Your task to perform on an android device: turn notification dots on Image 0: 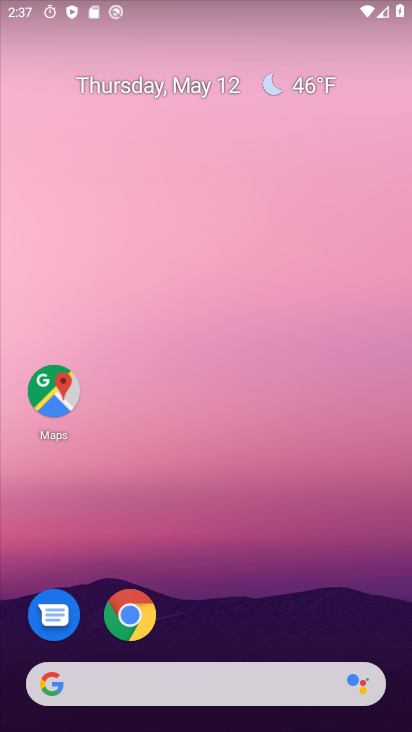
Step 0: drag from (224, 613) to (269, 146)
Your task to perform on an android device: turn notification dots on Image 1: 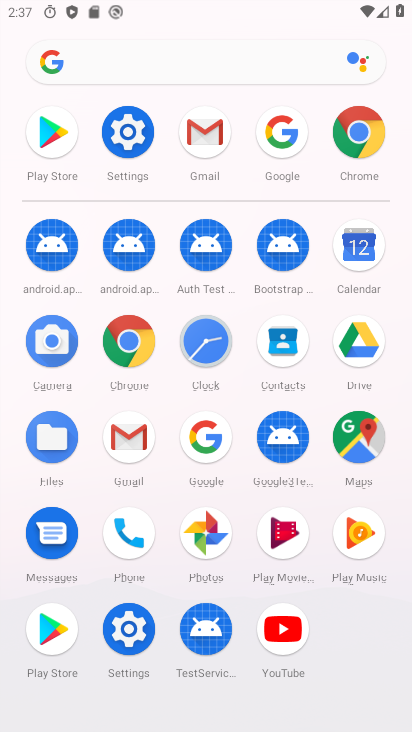
Step 1: click (126, 135)
Your task to perform on an android device: turn notification dots on Image 2: 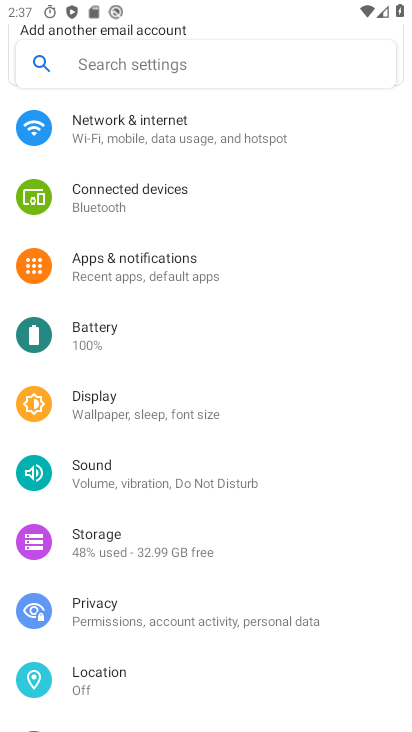
Step 2: click (148, 251)
Your task to perform on an android device: turn notification dots on Image 3: 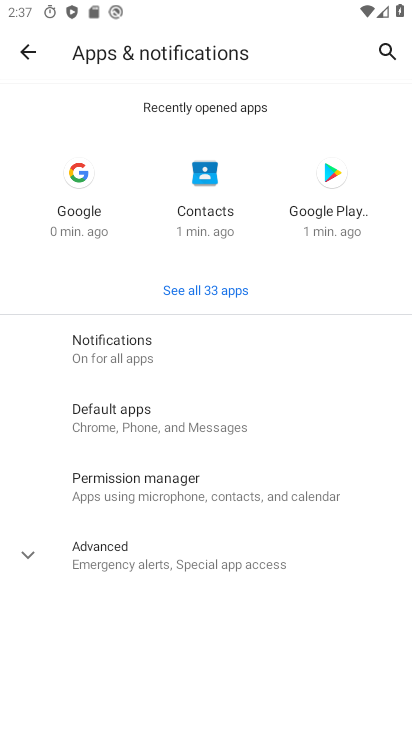
Step 3: click (183, 358)
Your task to perform on an android device: turn notification dots on Image 4: 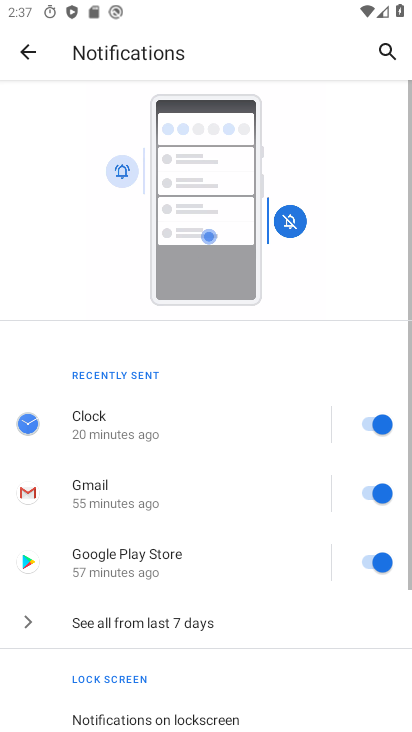
Step 4: drag from (248, 570) to (258, 6)
Your task to perform on an android device: turn notification dots on Image 5: 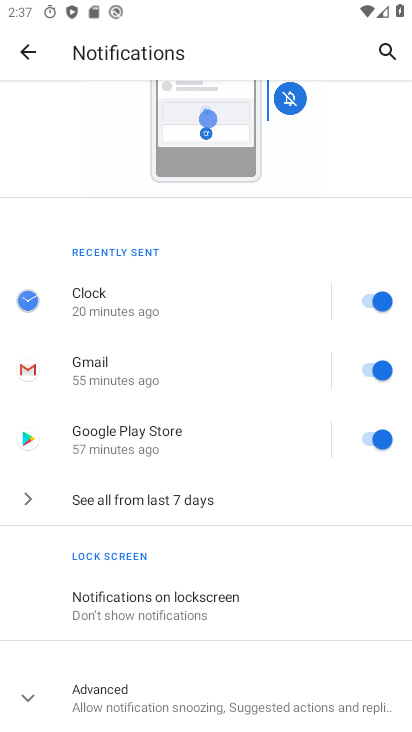
Step 5: click (134, 689)
Your task to perform on an android device: turn notification dots on Image 6: 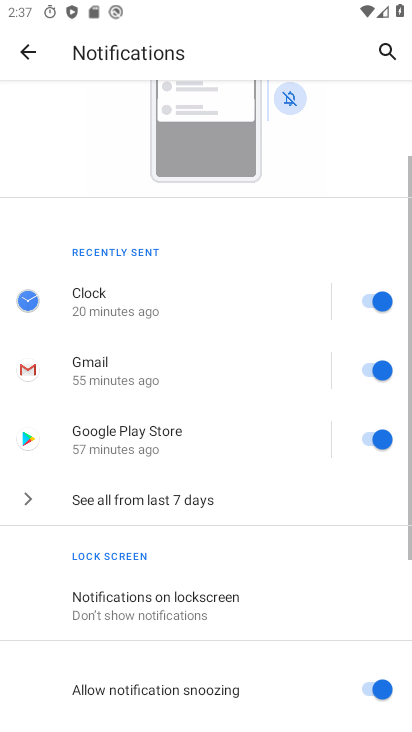
Step 6: drag from (146, 675) to (210, 245)
Your task to perform on an android device: turn notification dots on Image 7: 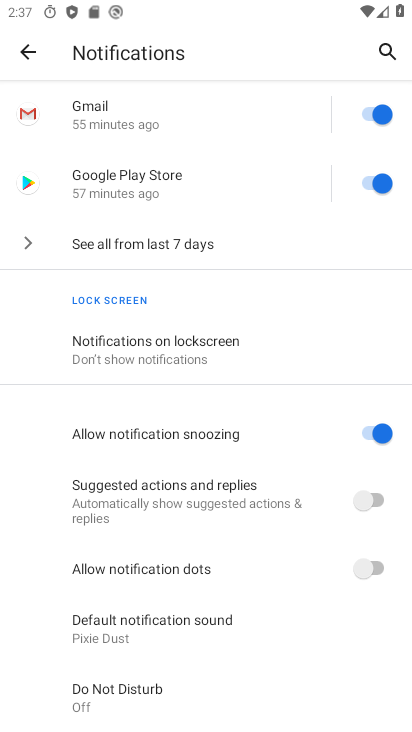
Step 7: click (359, 570)
Your task to perform on an android device: turn notification dots on Image 8: 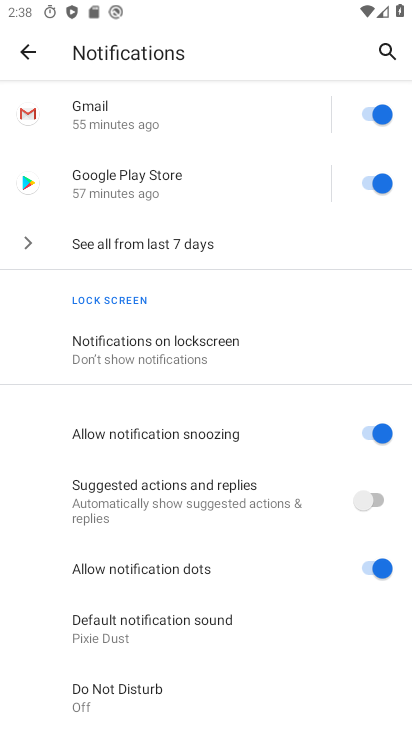
Step 8: task complete